Your task to perform on an android device: Go to notification settings Image 0: 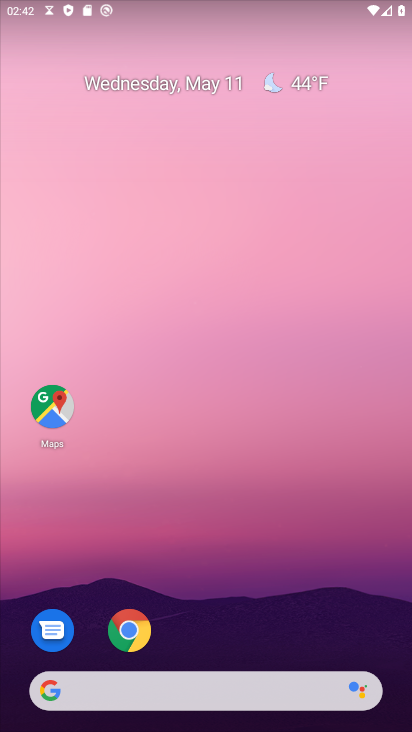
Step 0: drag from (204, 726) to (202, 173)
Your task to perform on an android device: Go to notification settings Image 1: 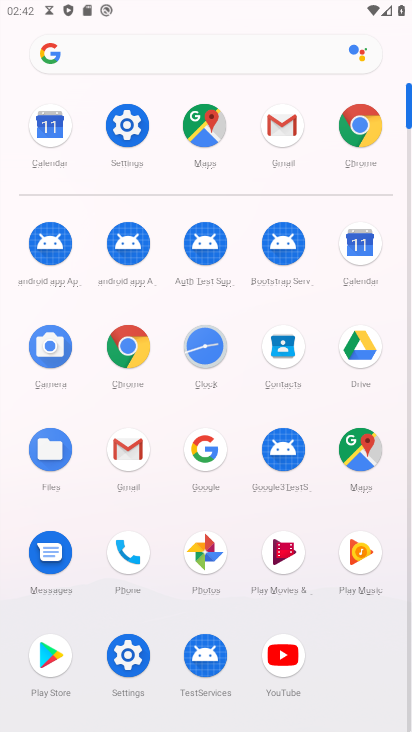
Step 1: click (127, 126)
Your task to perform on an android device: Go to notification settings Image 2: 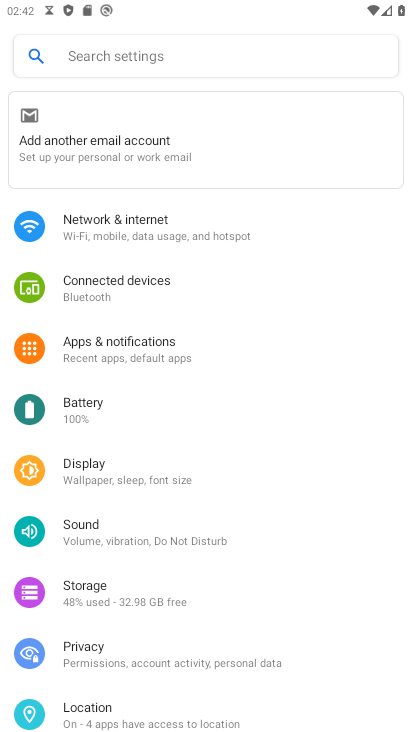
Step 2: click (124, 342)
Your task to perform on an android device: Go to notification settings Image 3: 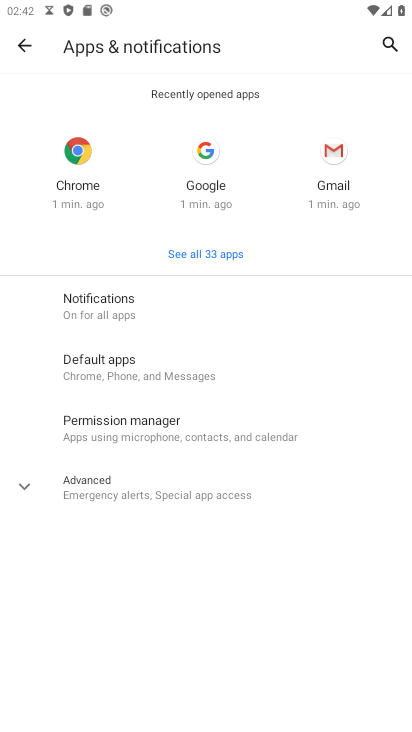
Step 3: click (99, 301)
Your task to perform on an android device: Go to notification settings Image 4: 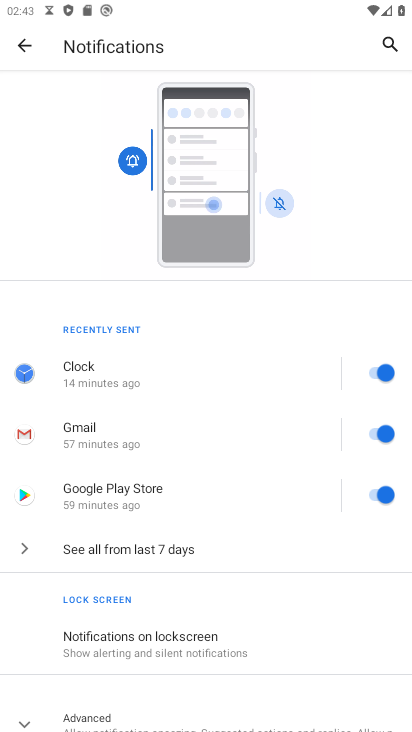
Step 4: task complete